Your task to perform on an android device: Show me the alarms in the clock app Image 0: 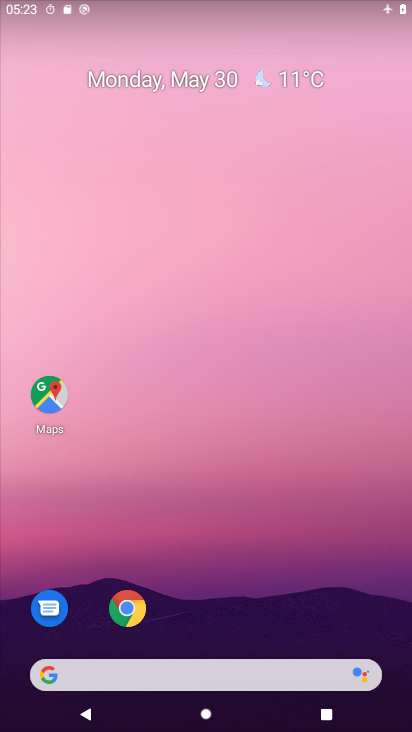
Step 0: drag from (266, 583) to (113, 32)
Your task to perform on an android device: Show me the alarms in the clock app Image 1: 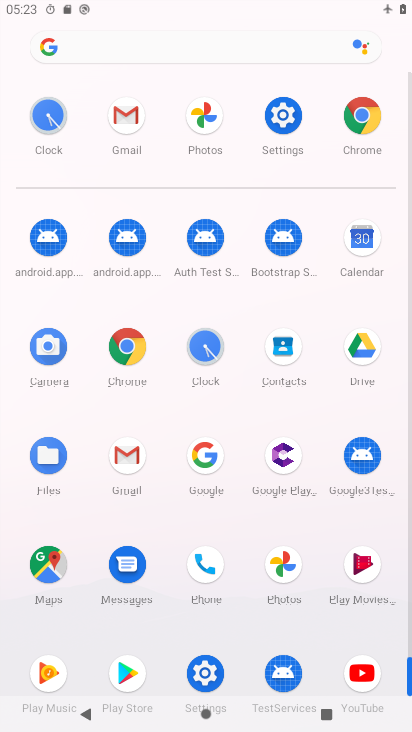
Step 1: click (46, 122)
Your task to perform on an android device: Show me the alarms in the clock app Image 2: 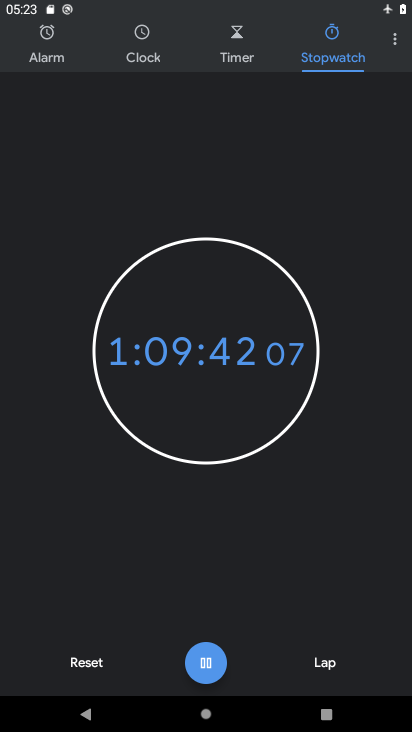
Step 2: click (56, 48)
Your task to perform on an android device: Show me the alarms in the clock app Image 3: 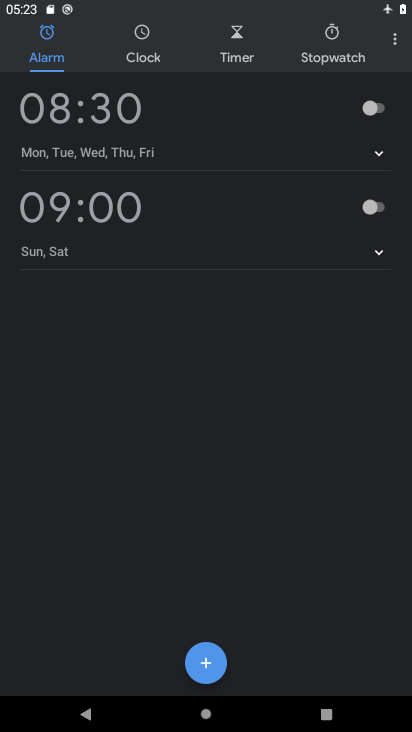
Step 3: task complete